Your task to perform on an android device: turn off picture-in-picture Image 0: 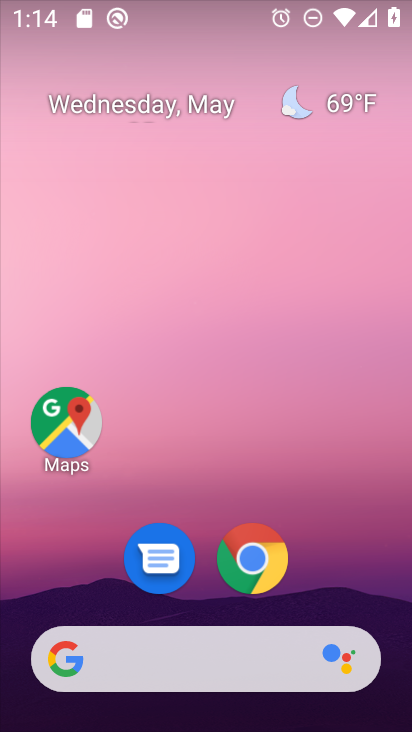
Step 0: drag from (386, 643) to (271, 15)
Your task to perform on an android device: turn off picture-in-picture Image 1: 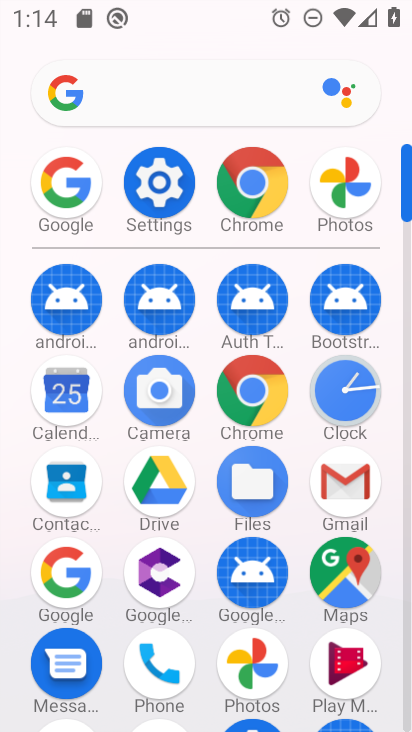
Step 1: click (252, 188)
Your task to perform on an android device: turn off picture-in-picture Image 2: 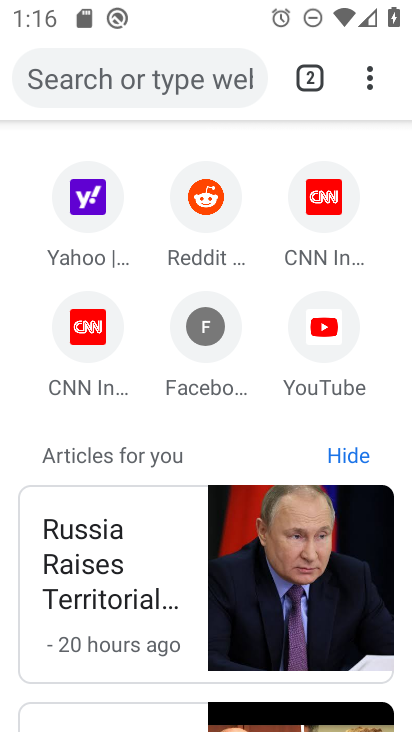
Step 2: task complete